Your task to perform on an android device: turn pop-ups on in chrome Image 0: 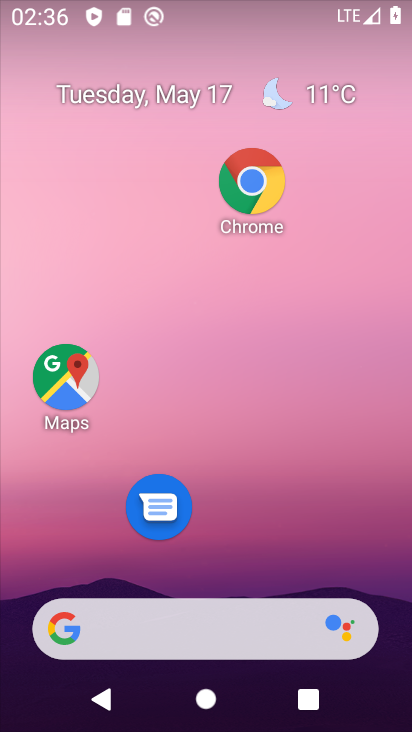
Step 0: drag from (199, 581) to (214, 458)
Your task to perform on an android device: turn pop-ups on in chrome Image 1: 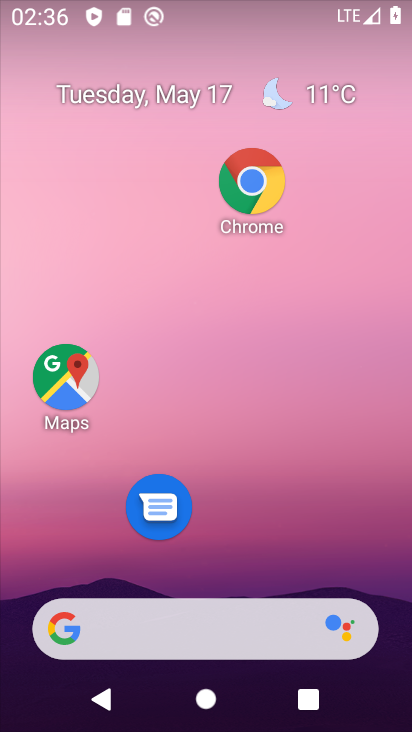
Step 1: click (252, 194)
Your task to perform on an android device: turn pop-ups on in chrome Image 2: 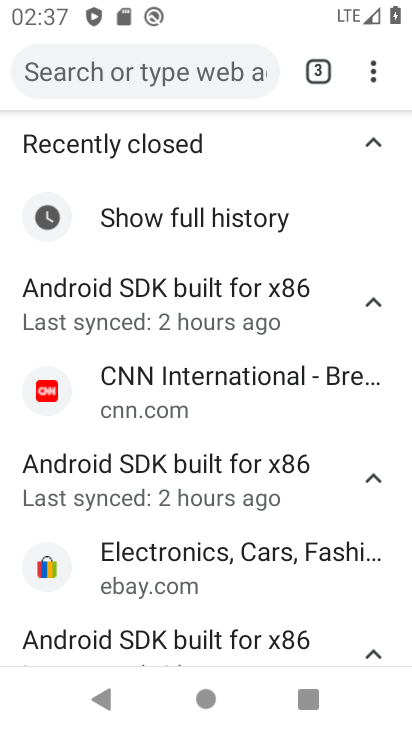
Step 2: click (372, 64)
Your task to perform on an android device: turn pop-ups on in chrome Image 3: 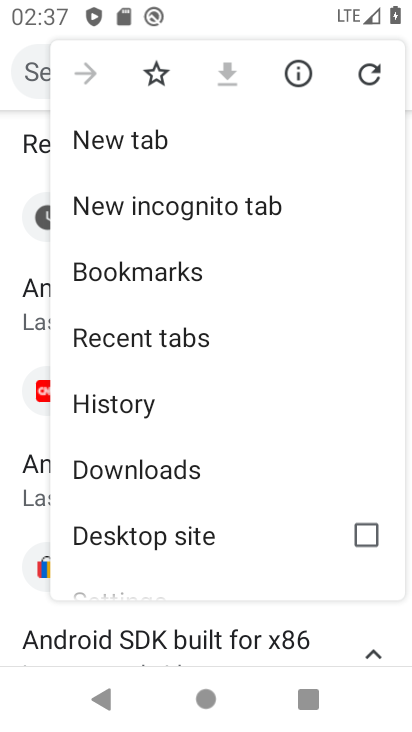
Step 3: click (99, 586)
Your task to perform on an android device: turn pop-ups on in chrome Image 4: 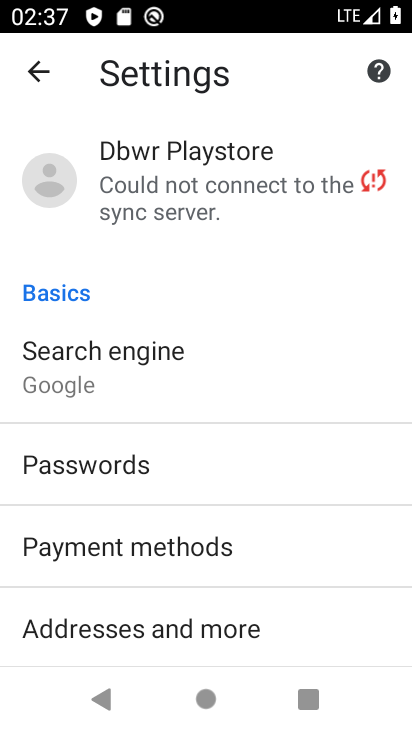
Step 4: drag from (99, 586) to (199, 195)
Your task to perform on an android device: turn pop-ups on in chrome Image 5: 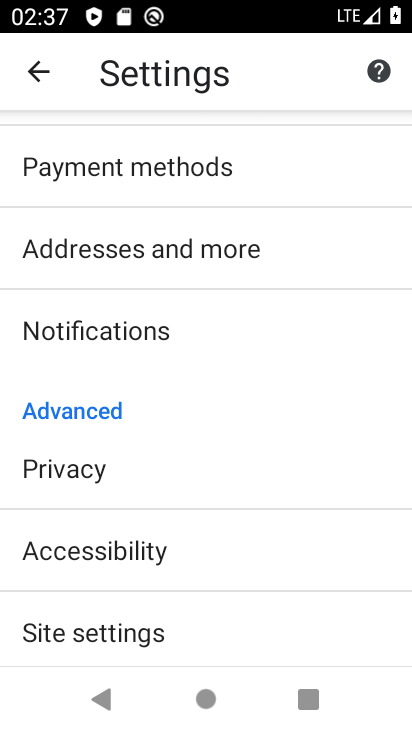
Step 5: click (103, 634)
Your task to perform on an android device: turn pop-ups on in chrome Image 6: 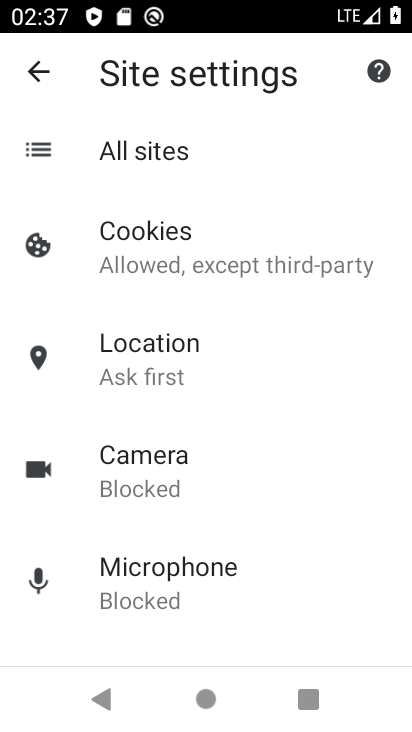
Step 6: drag from (108, 523) to (148, 181)
Your task to perform on an android device: turn pop-ups on in chrome Image 7: 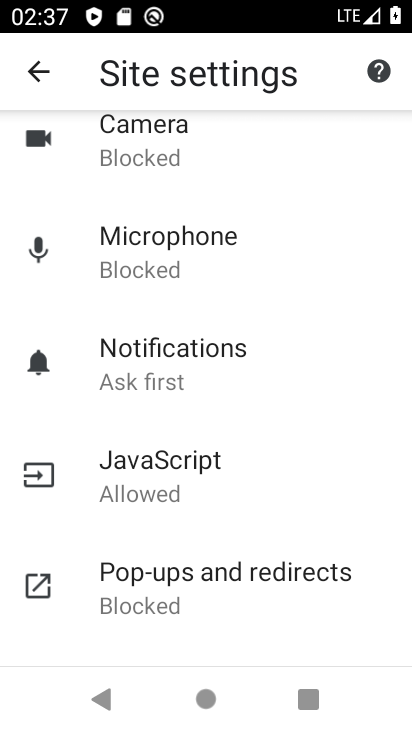
Step 7: click (186, 571)
Your task to perform on an android device: turn pop-ups on in chrome Image 8: 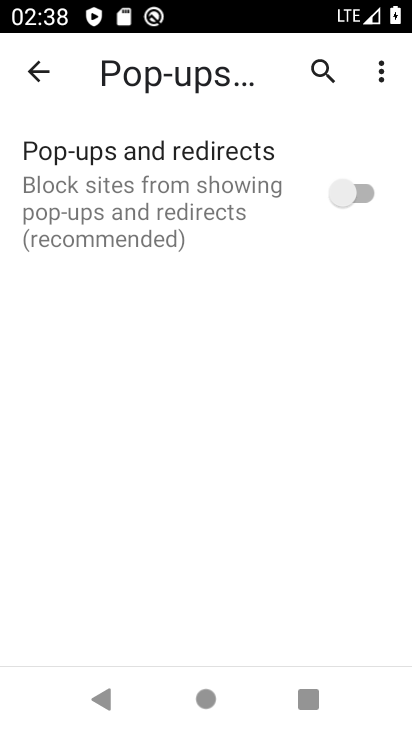
Step 8: click (364, 195)
Your task to perform on an android device: turn pop-ups on in chrome Image 9: 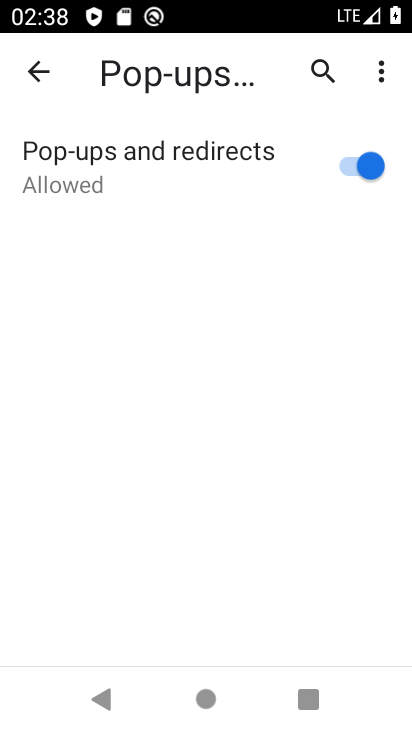
Step 9: task complete